Your task to perform on an android device: turn off javascript in the chrome app Image 0: 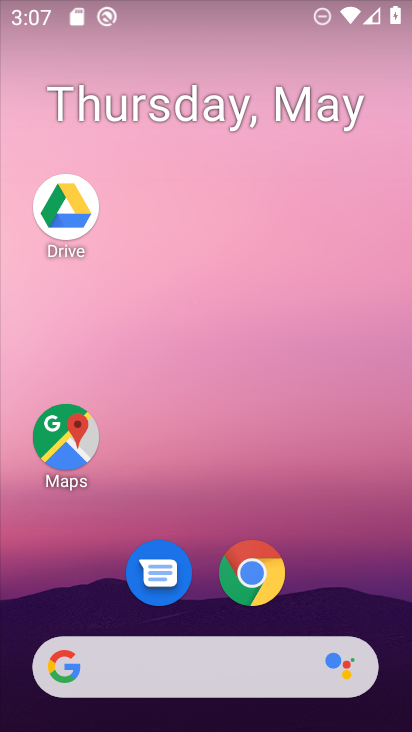
Step 0: click (261, 563)
Your task to perform on an android device: turn off javascript in the chrome app Image 1: 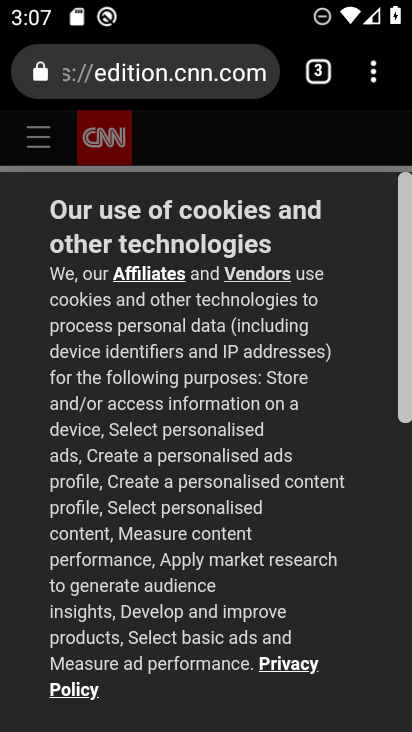
Step 1: click (377, 76)
Your task to perform on an android device: turn off javascript in the chrome app Image 2: 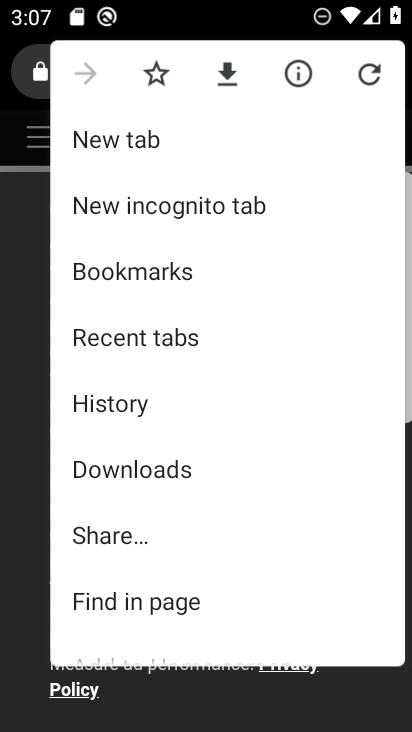
Step 2: drag from (217, 566) to (121, 188)
Your task to perform on an android device: turn off javascript in the chrome app Image 3: 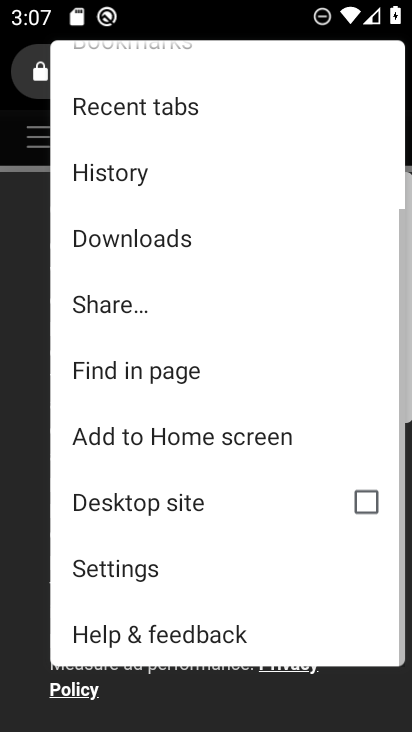
Step 3: click (135, 560)
Your task to perform on an android device: turn off javascript in the chrome app Image 4: 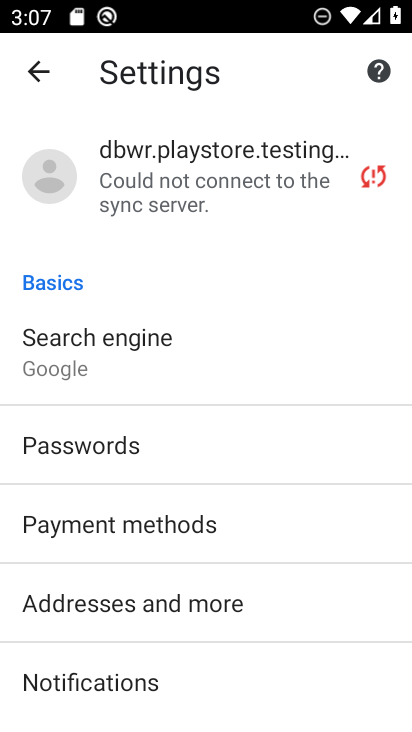
Step 4: drag from (174, 559) to (160, 286)
Your task to perform on an android device: turn off javascript in the chrome app Image 5: 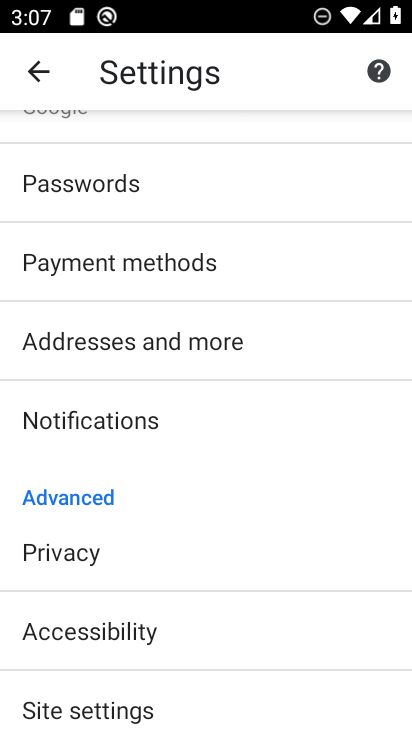
Step 5: drag from (246, 627) to (250, 381)
Your task to perform on an android device: turn off javascript in the chrome app Image 6: 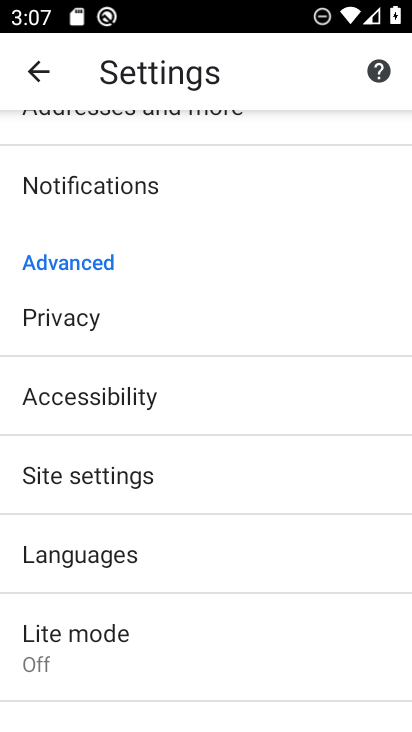
Step 6: drag from (182, 561) to (141, 245)
Your task to perform on an android device: turn off javascript in the chrome app Image 7: 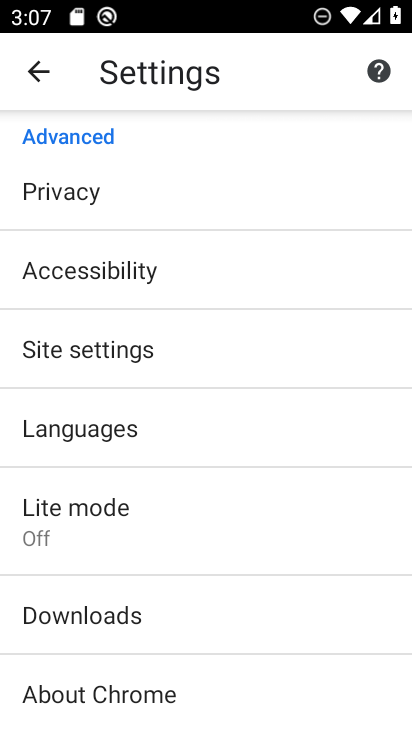
Step 7: click (89, 349)
Your task to perform on an android device: turn off javascript in the chrome app Image 8: 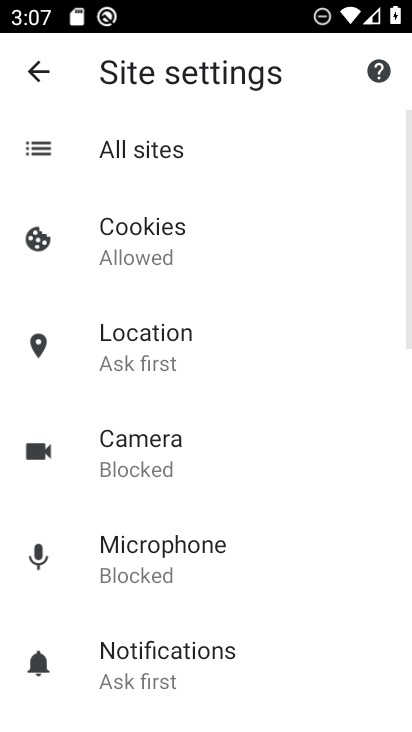
Step 8: drag from (201, 462) to (178, 179)
Your task to perform on an android device: turn off javascript in the chrome app Image 9: 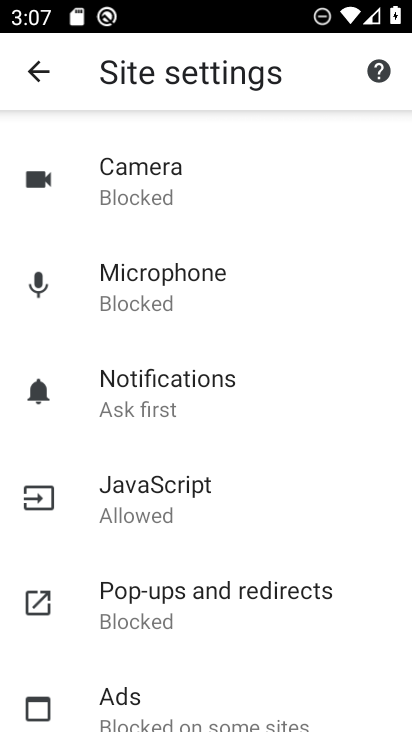
Step 9: click (139, 480)
Your task to perform on an android device: turn off javascript in the chrome app Image 10: 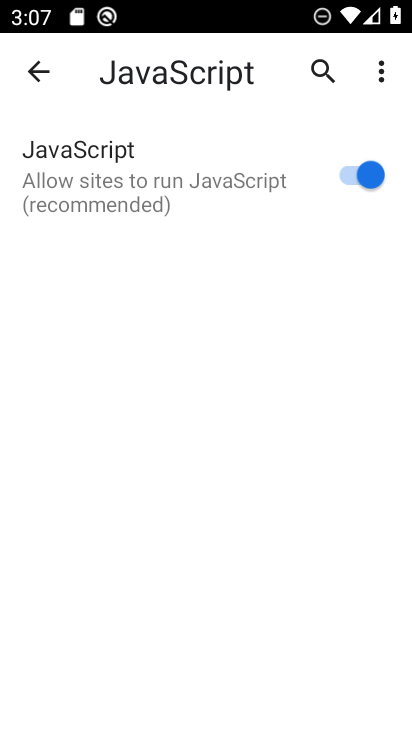
Step 10: click (365, 181)
Your task to perform on an android device: turn off javascript in the chrome app Image 11: 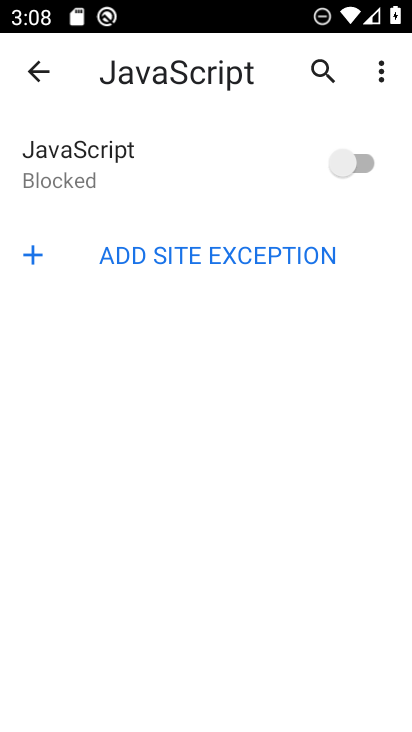
Step 11: task complete